Your task to perform on an android device: Open network settings Image 0: 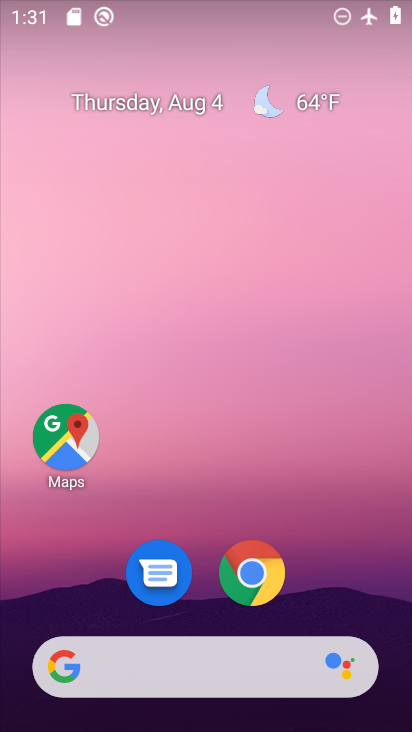
Step 0: drag from (362, 573) to (352, 89)
Your task to perform on an android device: Open network settings Image 1: 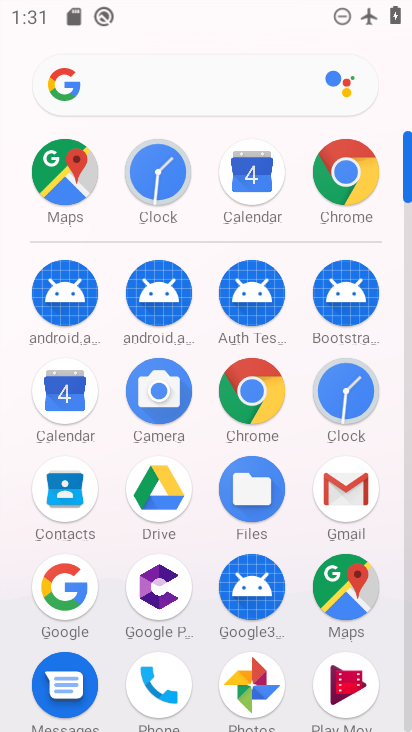
Step 1: drag from (293, 549) to (294, 129)
Your task to perform on an android device: Open network settings Image 2: 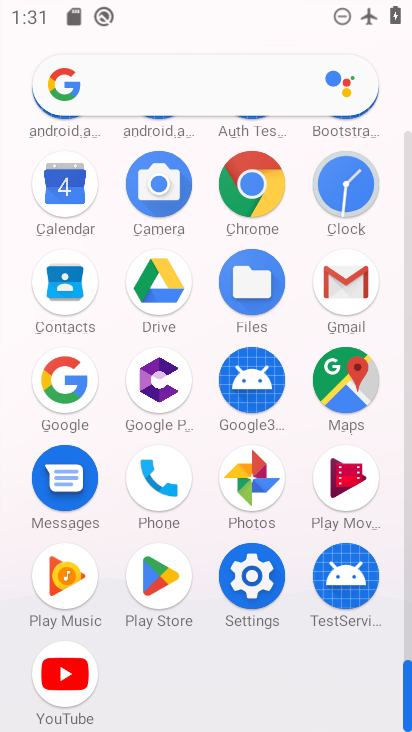
Step 2: click (242, 565)
Your task to perform on an android device: Open network settings Image 3: 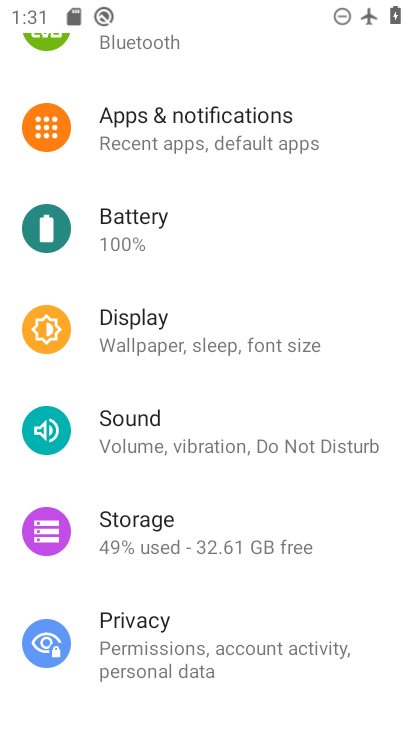
Step 3: drag from (233, 235) to (257, 608)
Your task to perform on an android device: Open network settings Image 4: 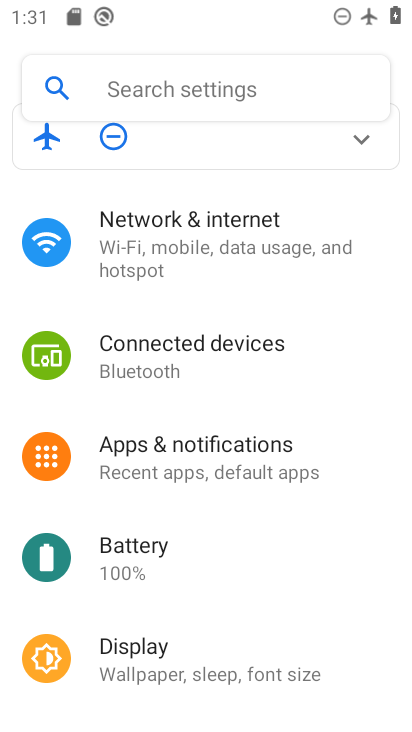
Step 4: click (156, 237)
Your task to perform on an android device: Open network settings Image 5: 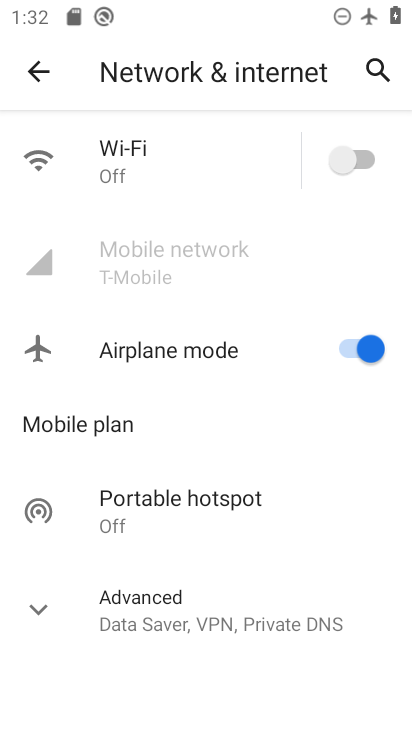
Step 5: task complete